Your task to perform on an android device: toggle translation in the chrome app Image 0: 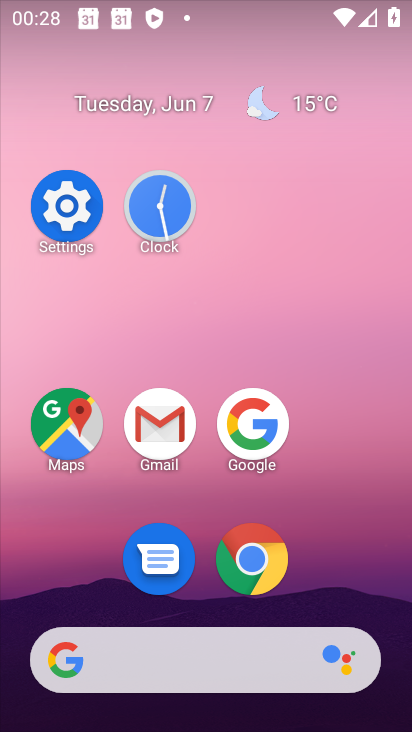
Step 0: click (250, 559)
Your task to perform on an android device: toggle translation in the chrome app Image 1: 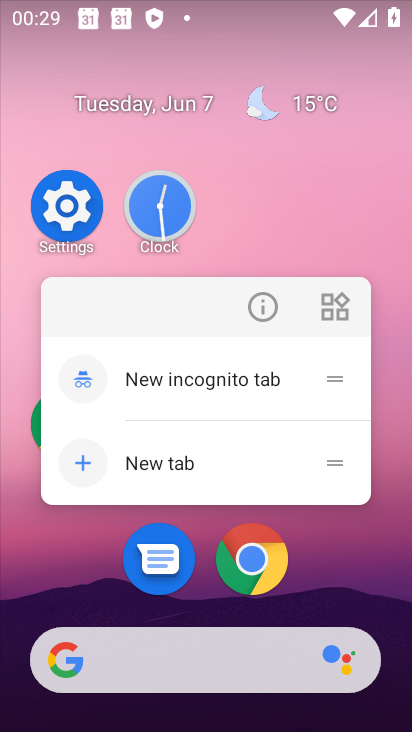
Step 1: click (280, 561)
Your task to perform on an android device: toggle translation in the chrome app Image 2: 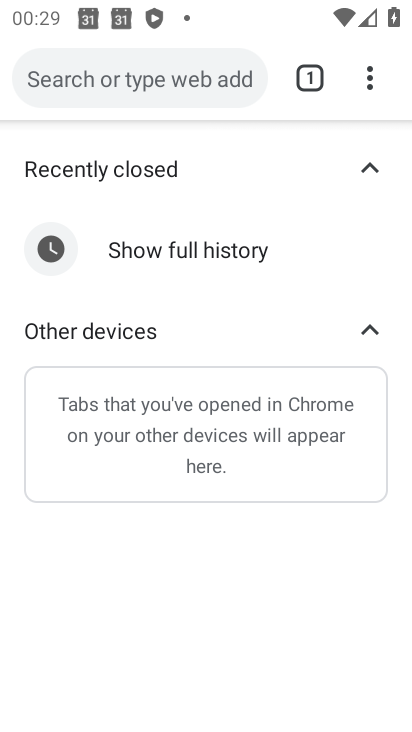
Step 2: click (368, 83)
Your task to perform on an android device: toggle translation in the chrome app Image 3: 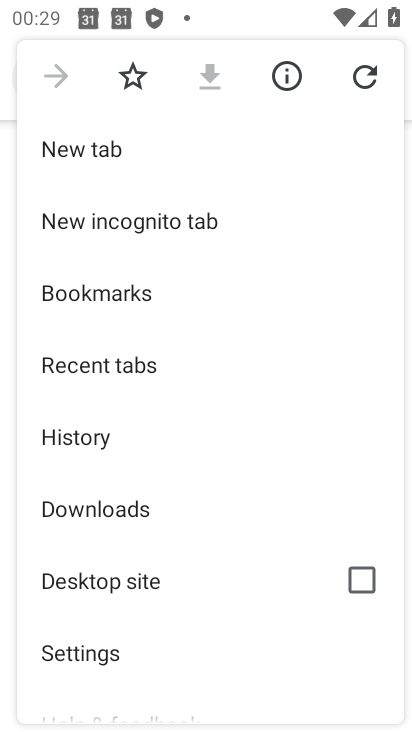
Step 3: drag from (154, 563) to (170, 327)
Your task to perform on an android device: toggle translation in the chrome app Image 4: 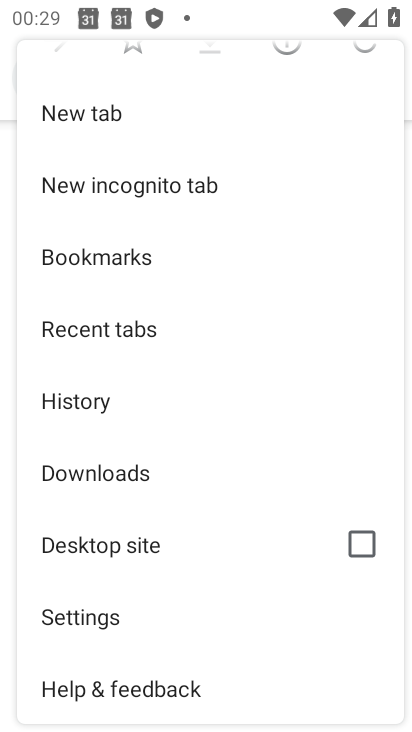
Step 4: click (134, 596)
Your task to perform on an android device: toggle translation in the chrome app Image 5: 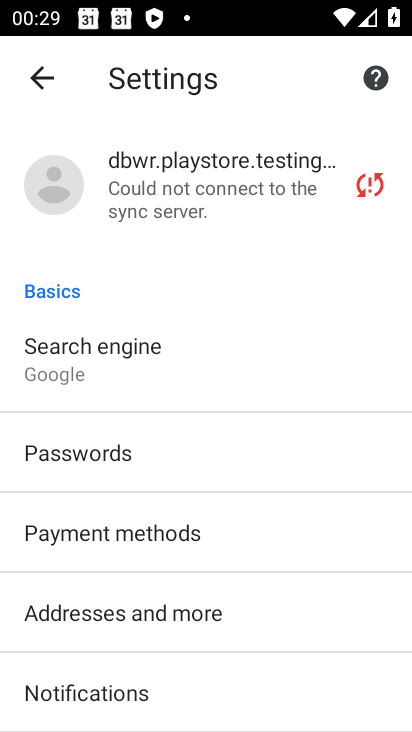
Step 5: drag from (283, 564) to (291, 247)
Your task to perform on an android device: toggle translation in the chrome app Image 6: 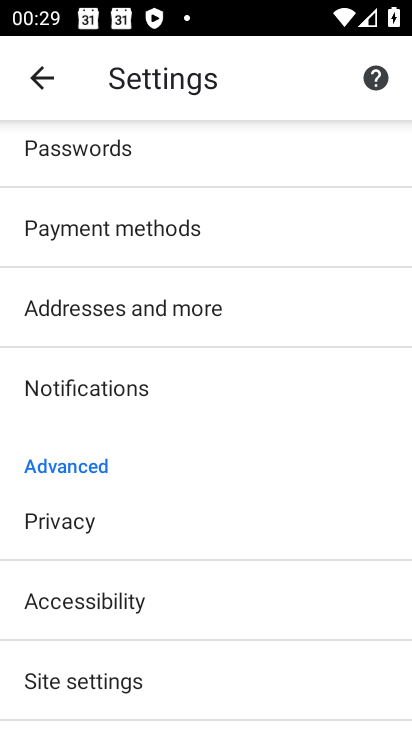
Step 6: drag from (157, 621) to (198, 312)
Your task to perform on an android device: toggle translation in the chrome app Image 7: 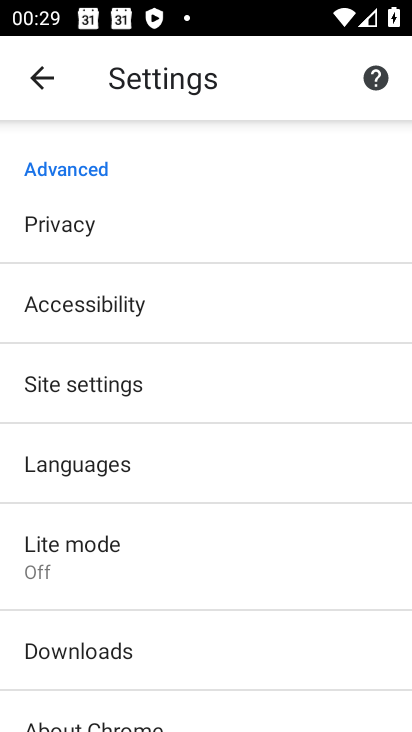
Step 7: click (162, 472)
Your task to perform on an android device: toggle translation in the chrome app Image 8: 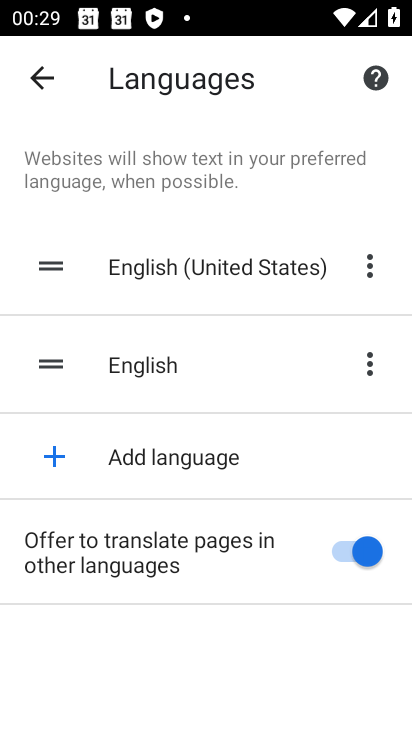
Step 8: click (345, 540)
Your task to perform on an android device: toggle translation in the chrome app Image 9: 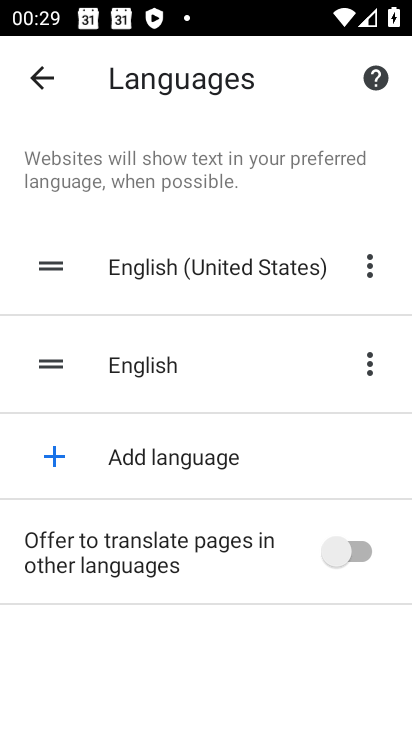
Step 9: task complete